Your task to perform on an android device: turn off improve location accuracy Image 0: 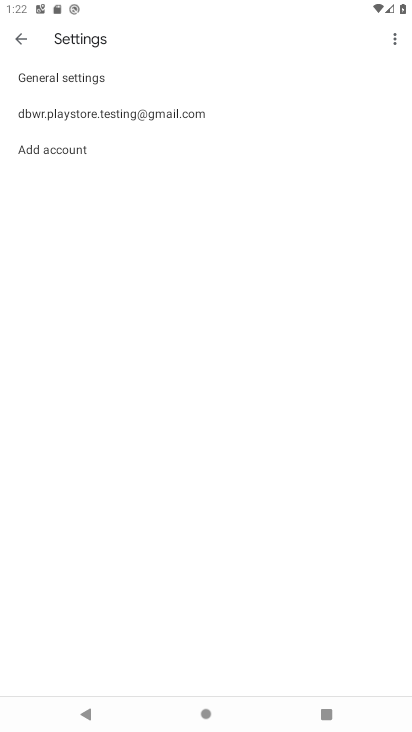
Step 0: press home button
Your task to perform on an android device: turn off improve location accuracy Image 1: 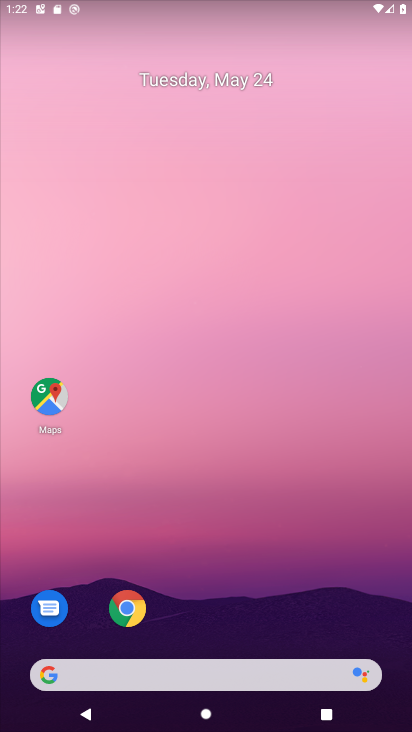
Step 1: drag from (290, 607) to (227, 0)
Your task to perform on an android device: turn off improve location accuracy Image 2: 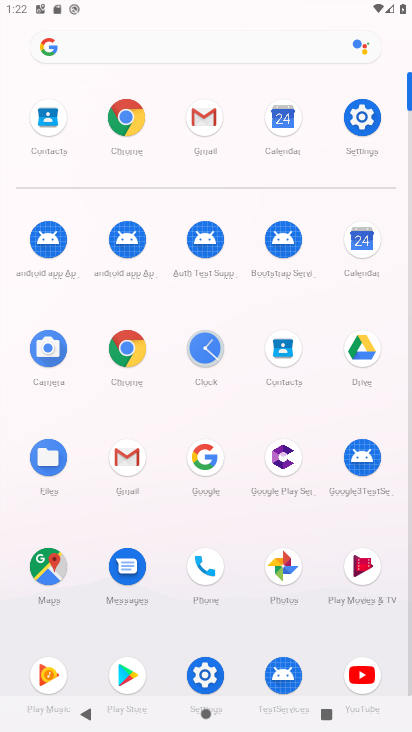
Step 2: click (352, 154)
Your task to perform on an android device: turn off improve location accuracy Image 3: 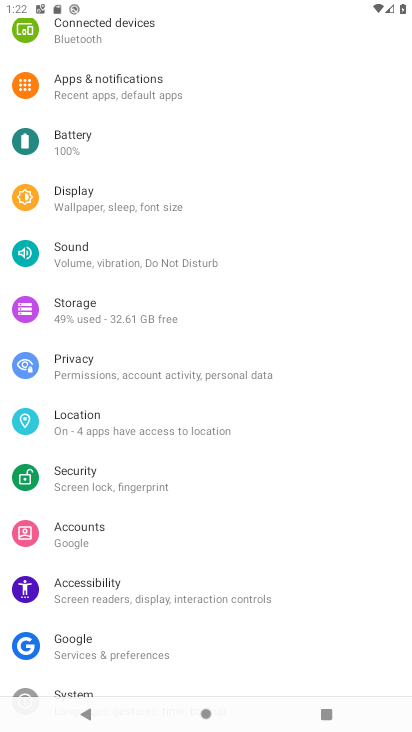
Step 3: drag from (195, 630) to (138, 247)
Your task to perform on an android device: turn off improve location accuracy Image 4: 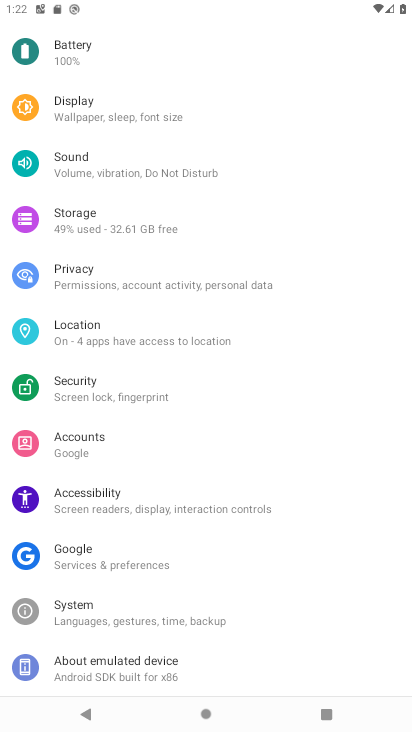
Step 4: click (145, 326)
Your task to perform on an android device: turn off improve location accuracy Image 5: 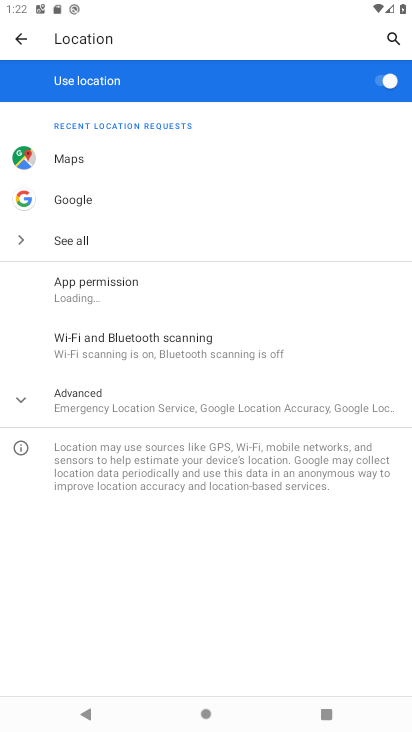
Step 5: click (131, 405)
Your task to perform on an android device: turn off improve location accuracy Image 6: 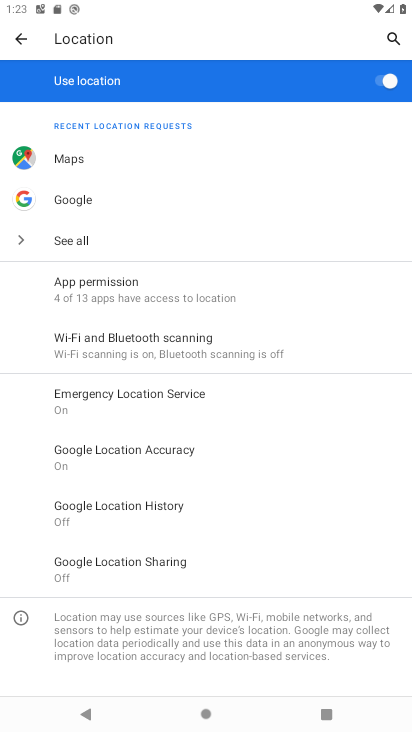
Step 6: click (195, 468)
Your task to perform on an android device: turn off improve location accuracy Image 7: 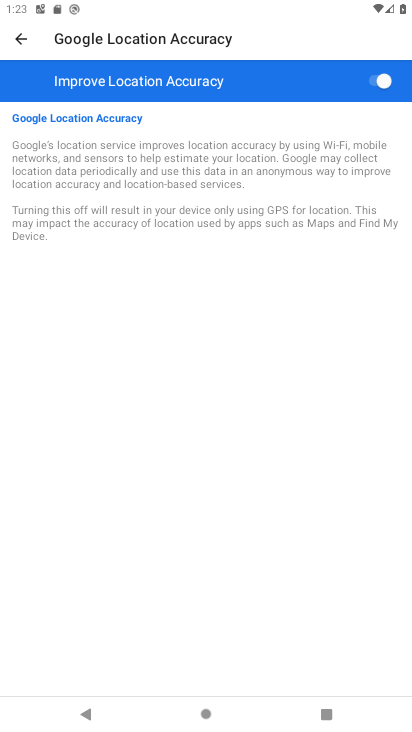
Step 7: click (364, 89)
Your task to perform on an android device: turn off improve location accuracy Image 8: 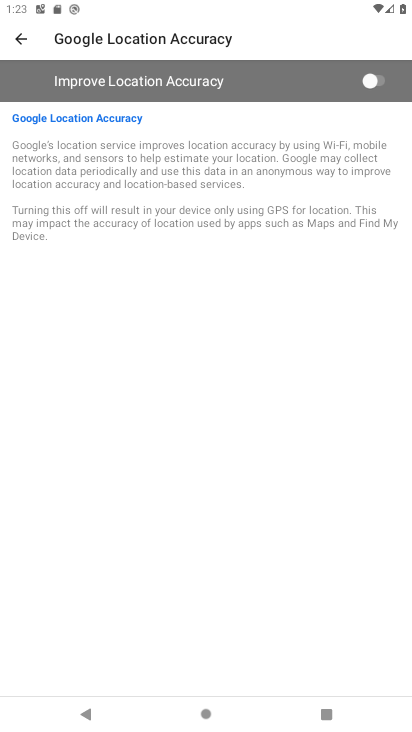
Step 8: task complete